Your task to perform on an android device: show emergency info Image 0: 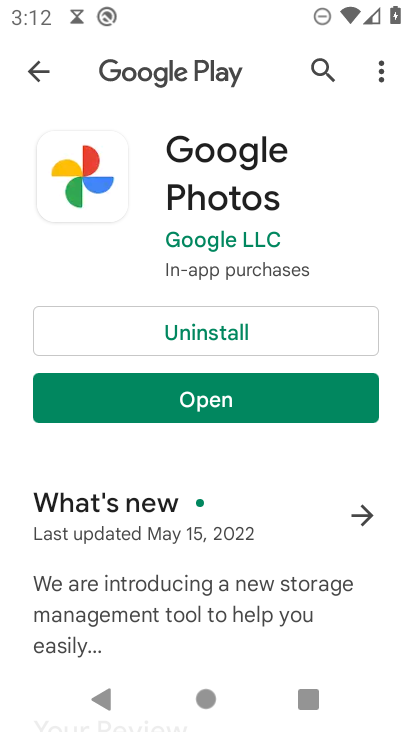
Step 0: press home button
Your task to perform on an android device: show emergency info Image 1: 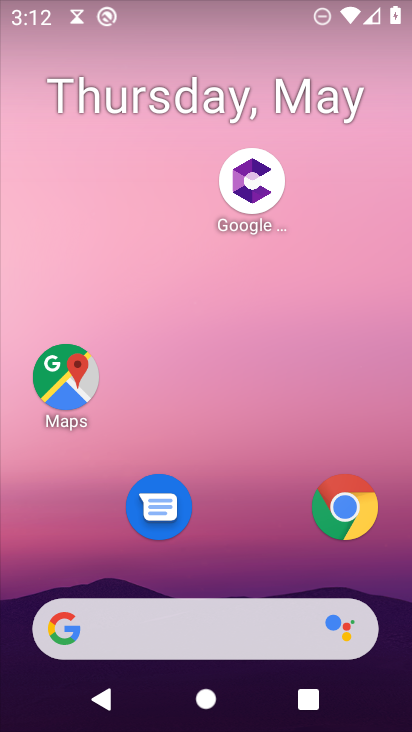
Step 1: drag from (252, 526) to (141, 67)
Your task to perform on an android device: show emergency info Image 2: 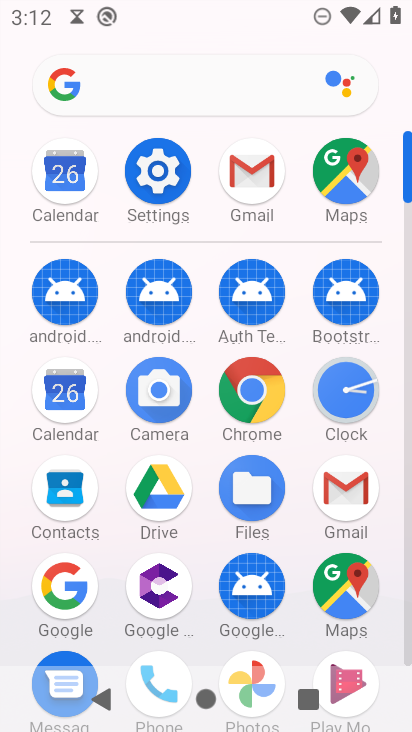
Step 2: click (173, 165)
Your task to perform on an android device: show emergency info Image 3: 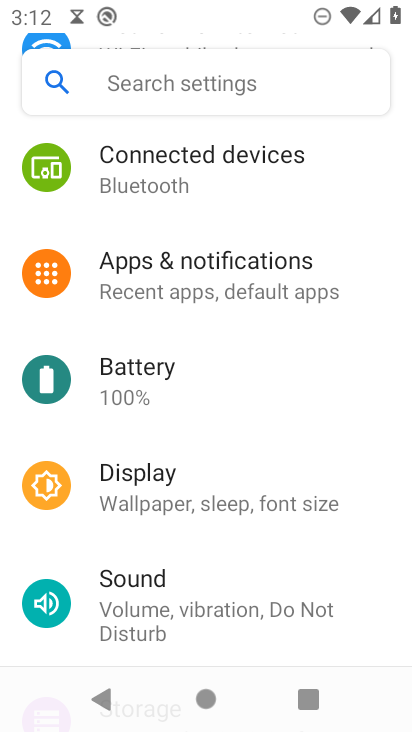
Step 3: drag from (267, 650) to (270, 50)
Your task to perform on an android device: show emergency info Image 4: 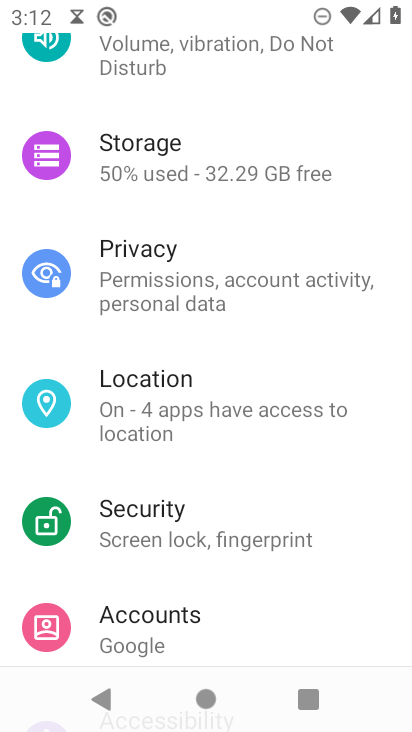
Step 4: drag from (320, 628) to (288, 227)
Your task to perform on an android device: show emergency info Image 5: 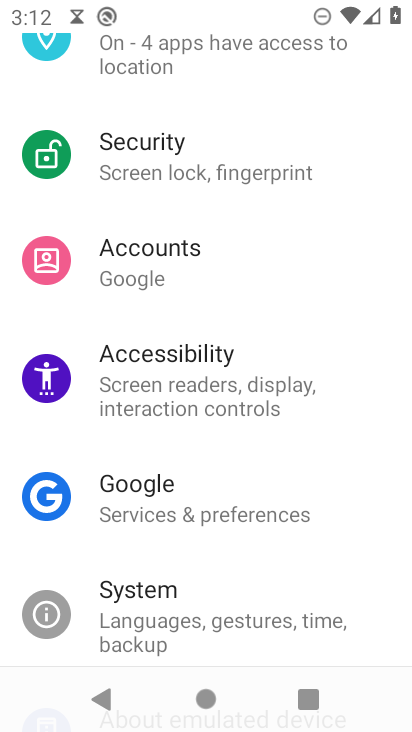
Step 5: drag from (378, 647) to (338, 242)
Your task to perform on an android device: show emergency info Image 6: 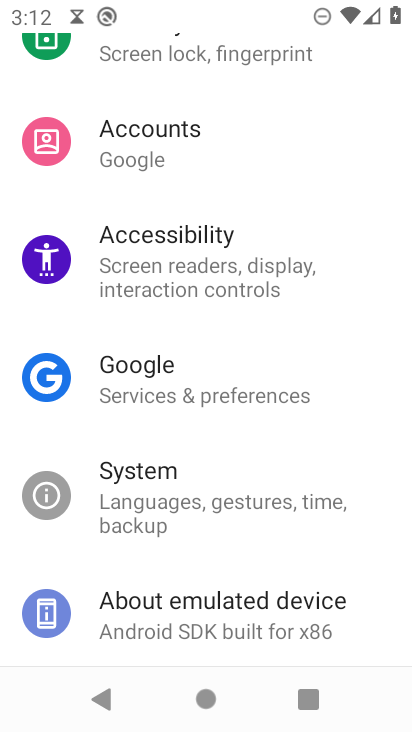
Step 6: click (226, 615)
Your task to perform on an android device: show emergency info Image 7: 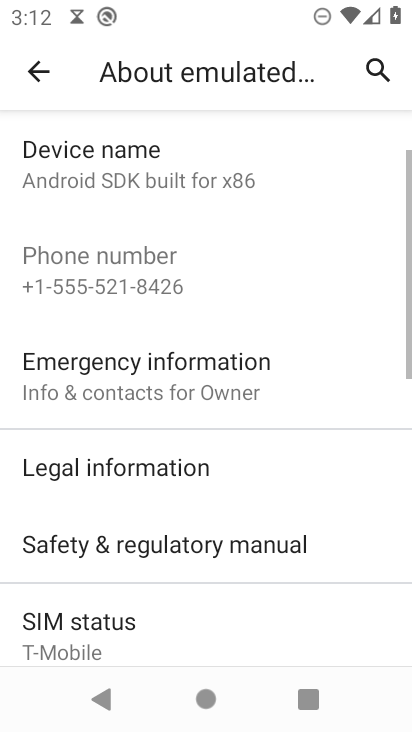
Step 7: click (187, 367)
Your task to perform on an android device: show emergency info Image 8: 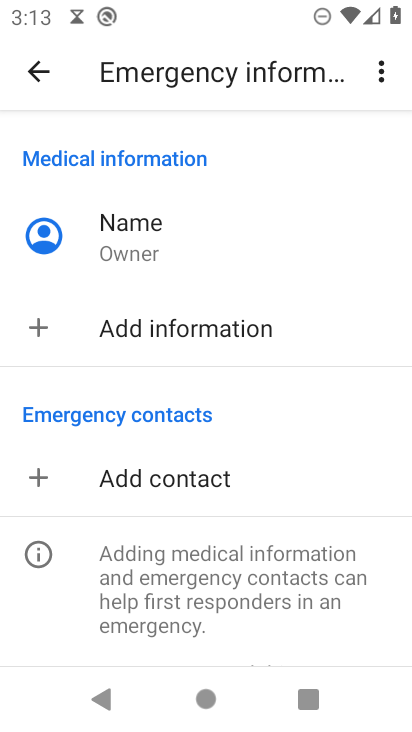
Step 8: task complete